Your task to perform on an android device: Go to eBay Image 0: 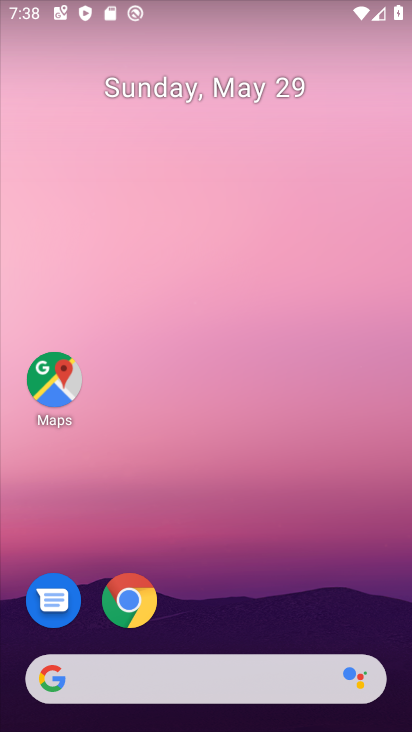
Step 0: click (142, 608)
Your task to perform on an android device: Go to eBay Image 1: 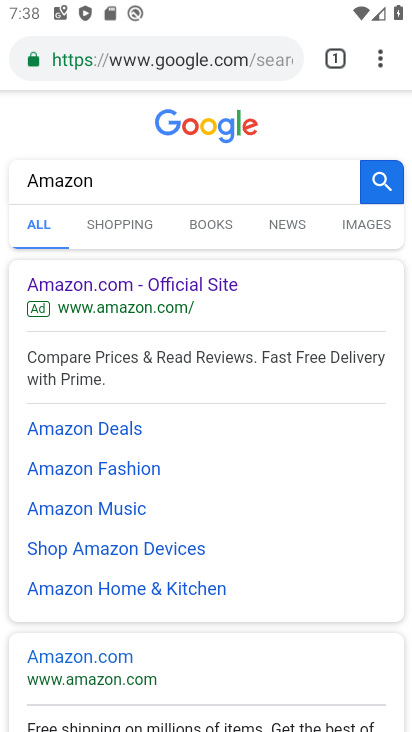
Step 1: drag from (17, 332) to (304, 396)
Your task to perform on an android device: Go to eBay Image 2: 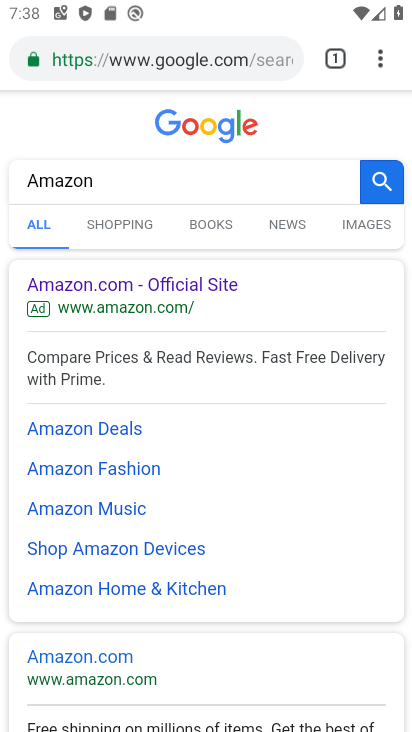
Step 2: click (225, 65)
Your task to perform on an android device: Go to eBay Image 3: 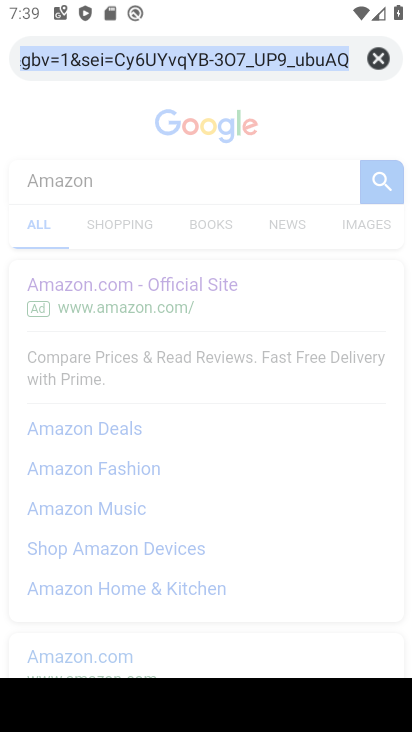
Step 3: type "eBay"
Your task to perform on an android device: Go to eBay Image 4: 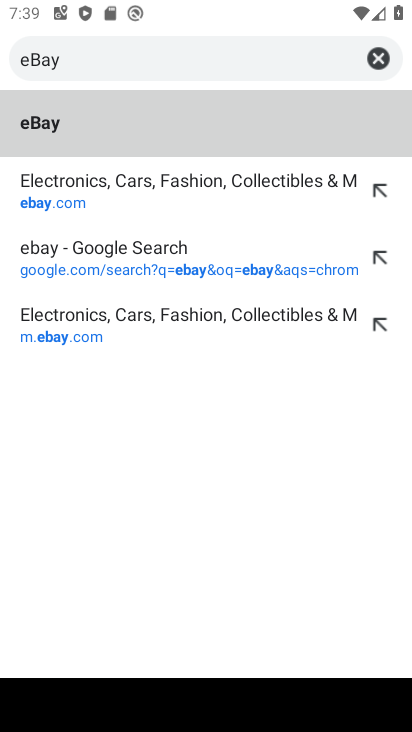
Step 4: click (206, 181)
Your task to perform on an android device: Go to eBay Image 5: 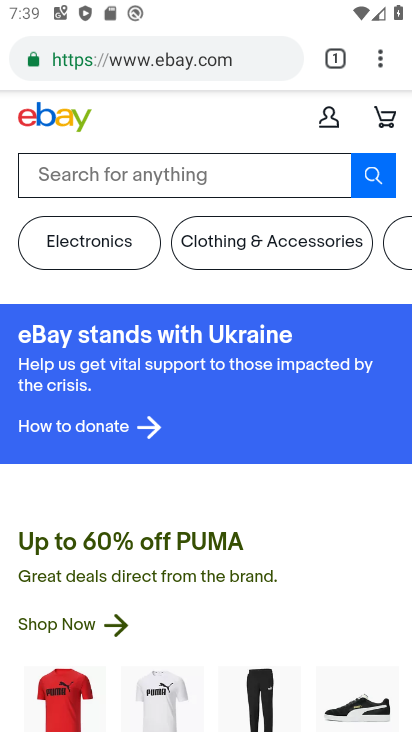
Step 5: task complete